Your task to perform on an android device: Go to battery settings Image 0: 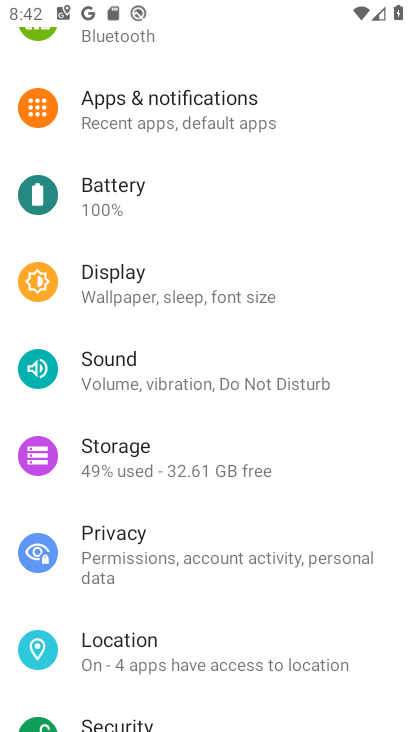
Step 0: press back button
Your task to perform on an android device: Go to battery settings Image 1: 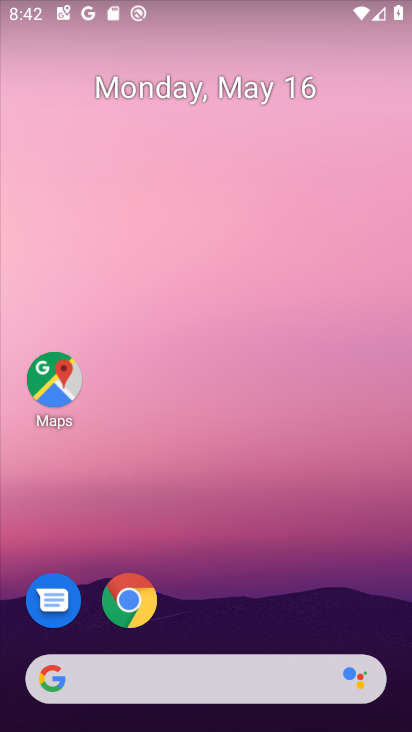
Step 1: drag from (281, 684) to (84, 254)
Your task to perform on an android device: Go to battery settings Image 2: 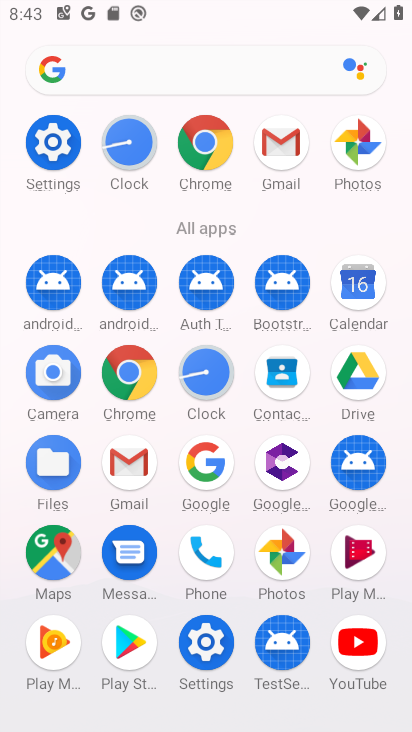
Step 2: click (54, 157)
Your task to perform on an android device: Go to battery settings Image 3: 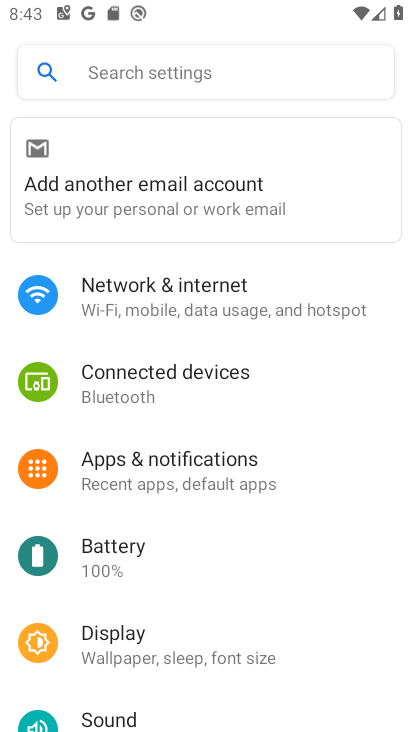
Step 3: click (119, 562)
Your task to perform on an android device: Go to battery settings Image 4: 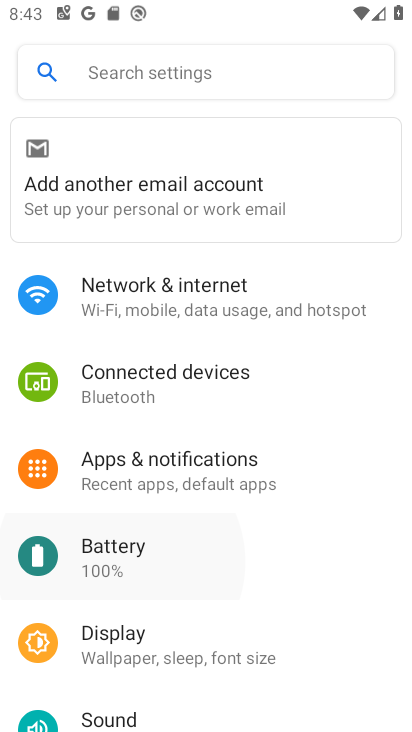
Step 4: click (115, 557)
Your task to perform on an android device: Go to battery settings Image 5: 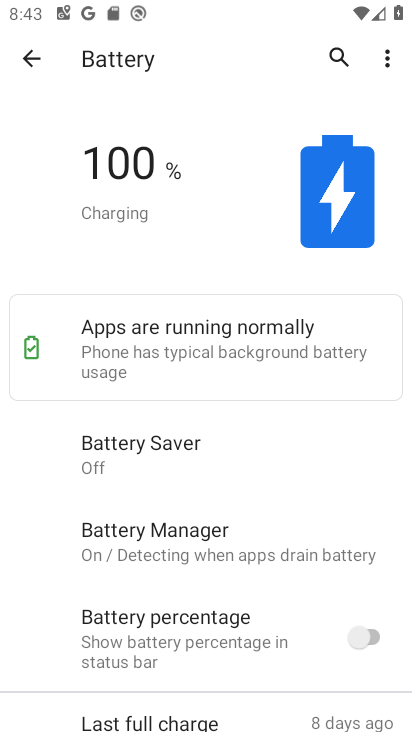
Step 5: task complete